Your task to perform on an android device: turn on location history Image 0: 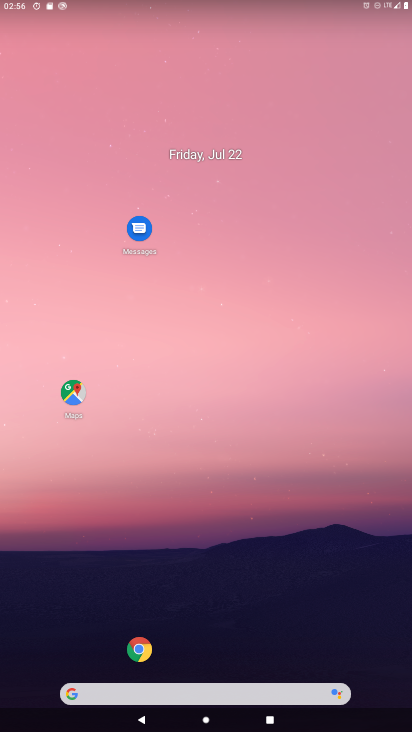
Step 0: click (138, 645)
Your task to perform on an android device: turn on location history Image 1: 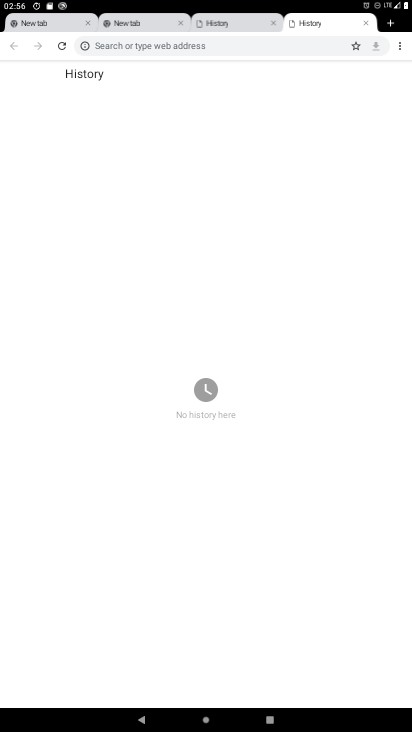
Step 1: click (405, 43)
Your task to perform on an android device: turn on location history Image 2: 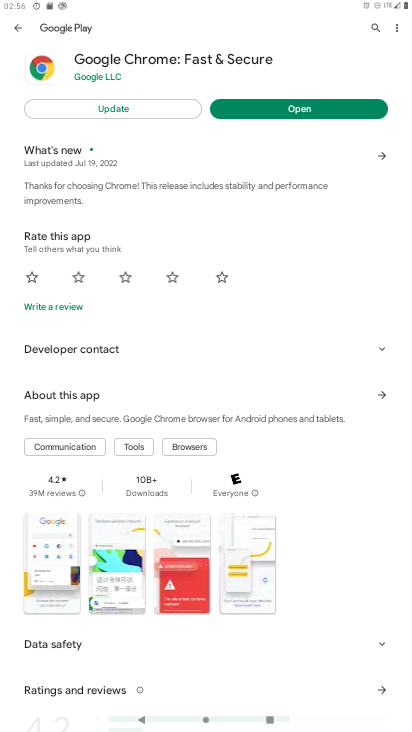
Step 2: click (17, 27)
Your task to perform on an android device: turn on location history Image 3: 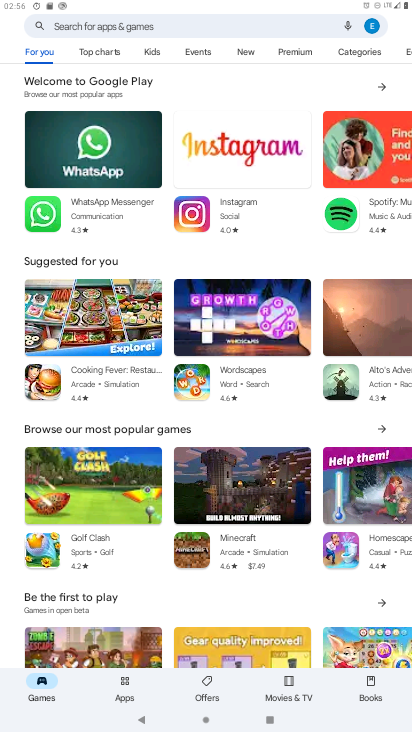
Step 3: task complete